Your task to perform on an android device: Open the map Image 0: 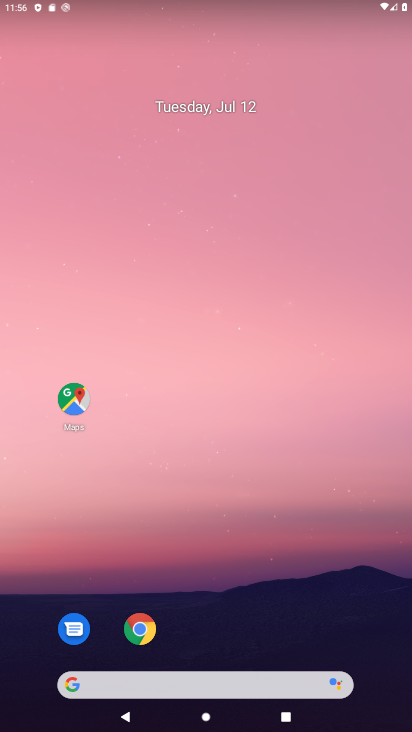
Step 0: click (70, 407)
Your task to perform on an android device: Open the map Image 1: 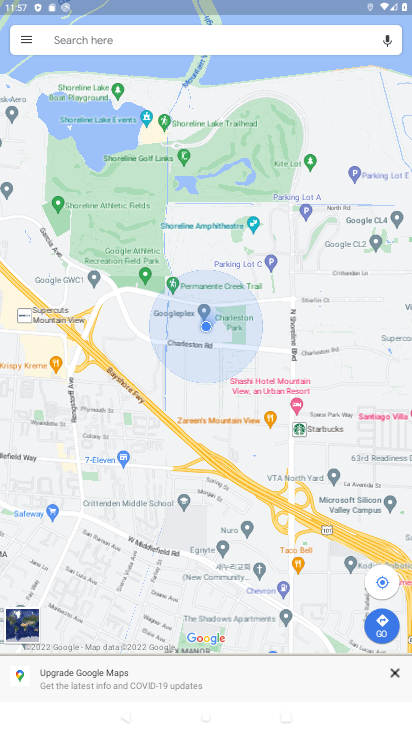
Step 1: task complete